Your task to perform on an android device: check google app version Image 0: 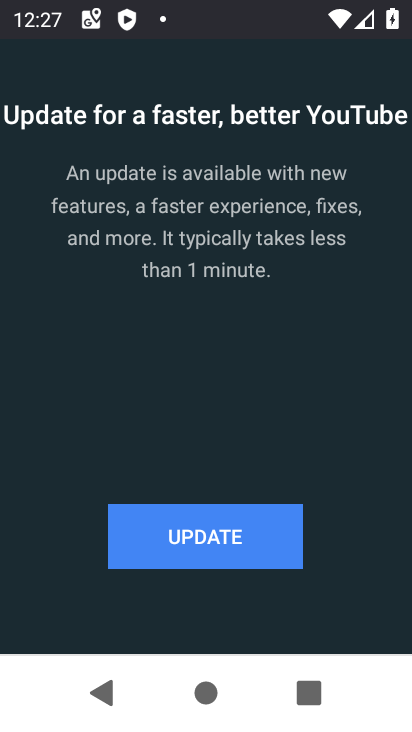
Step 0: press home button
Your task to perform on an android device: check google app version Image 1: 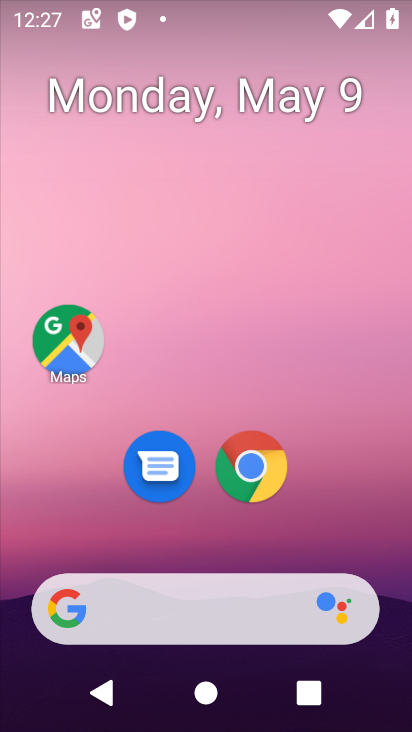
Step 1: drag from (398, 558) to (381, 240)
Your task to perform on an android device: check google app version Image 2: 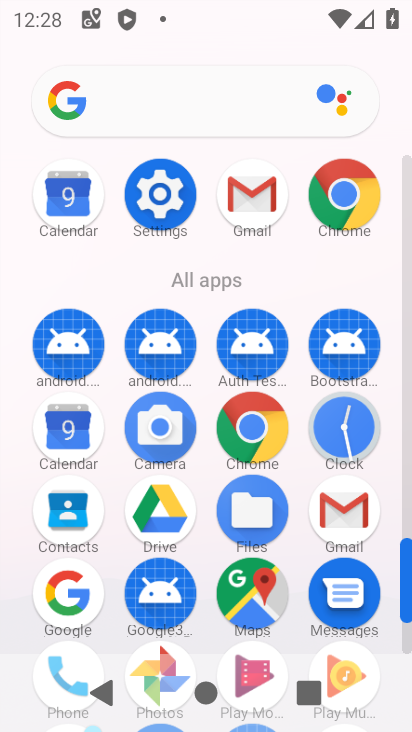
Step 2: click (348, 206)
Your task to perform on an android device: check google app version Image 3: 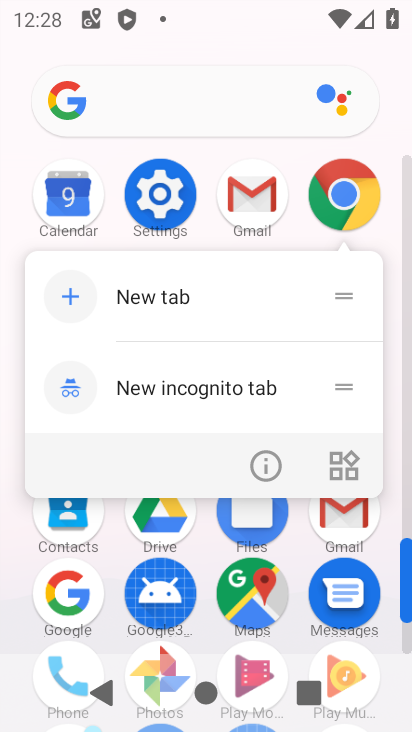
Step 3: click (265, 473)
Your task to perform on an android device: check google app version Image 4: 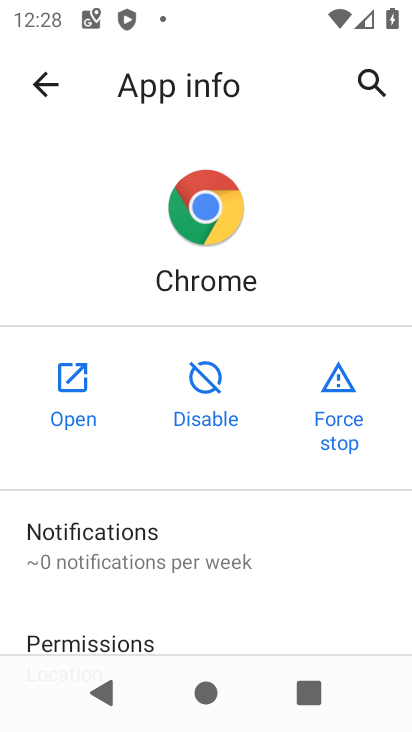
Step 4: drag from (318, 626) to (264, 213)
Your task to perform on an android device: check google app version Image 5: 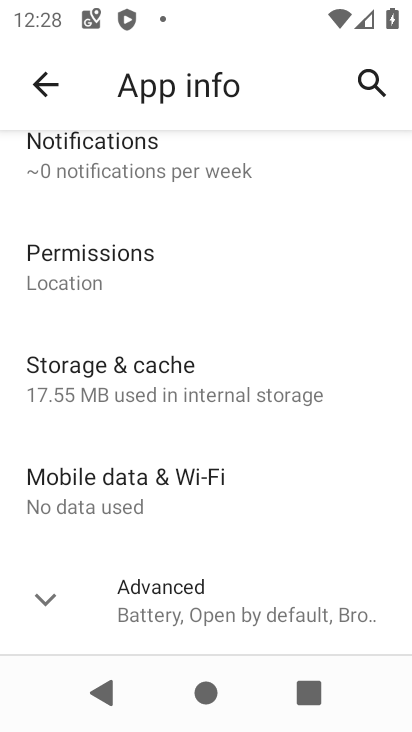
Step 5: drag from (365, 548) to (244, 158)
Your task to perform on an android device: check google app version Image 6: 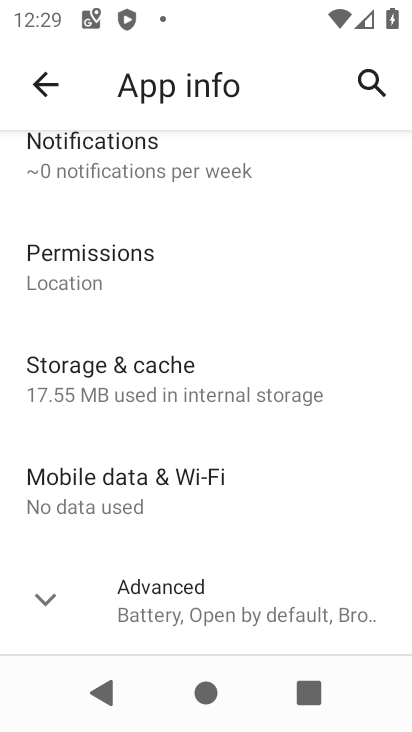
Step 6: click (320, 618)
Your task to perform on an android device: check google app version Image 7: 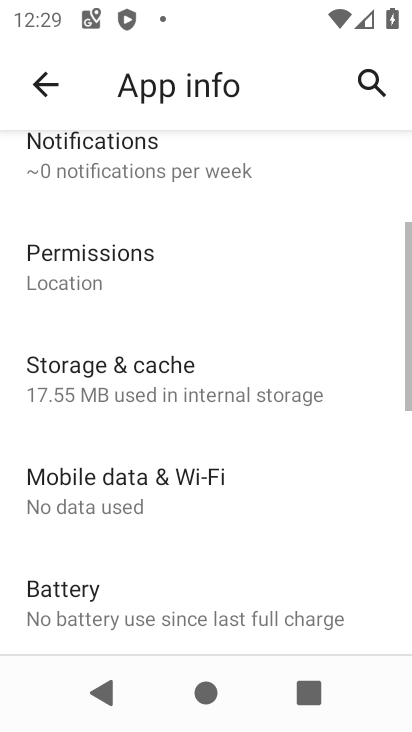
Step 7: task complete